Your task to perform on an android device: turn off sleep mode Image 0: 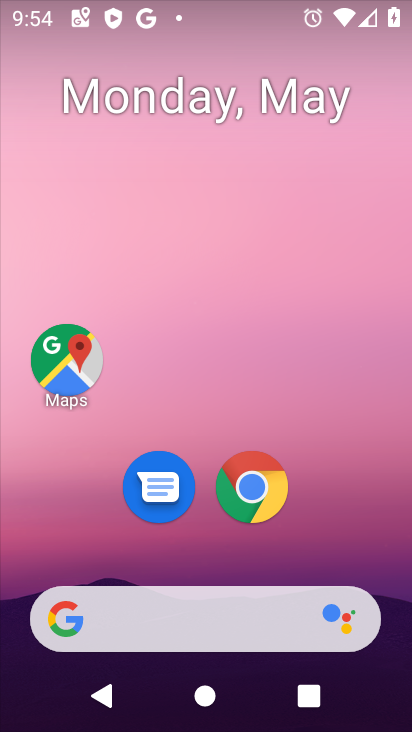
Step 0: drag from (203, 19) to (234, 573)
Your task to perform on an android device: turn off sleep mode Image 1: 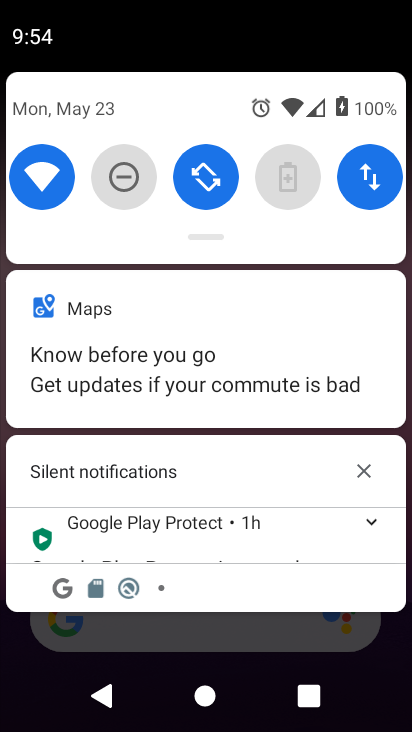
Step 1: drag from (205, 70) to (118, 638)
Your task to perform on an android device: turn off sleep mode Image 2: 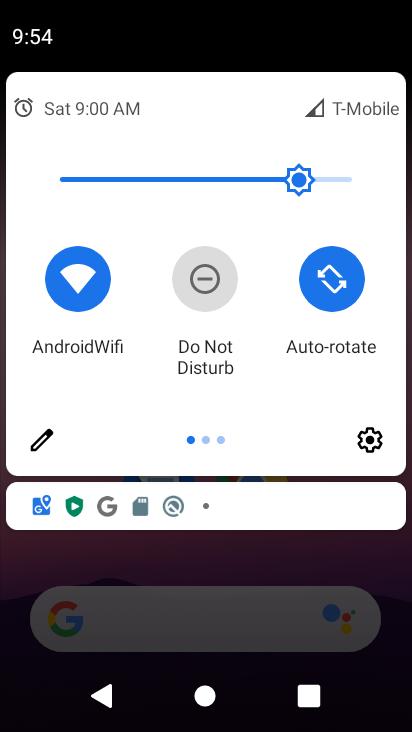
Step 2: click (352, 435)
Your task to perform on an android device: turn off sleep mode Image 3: 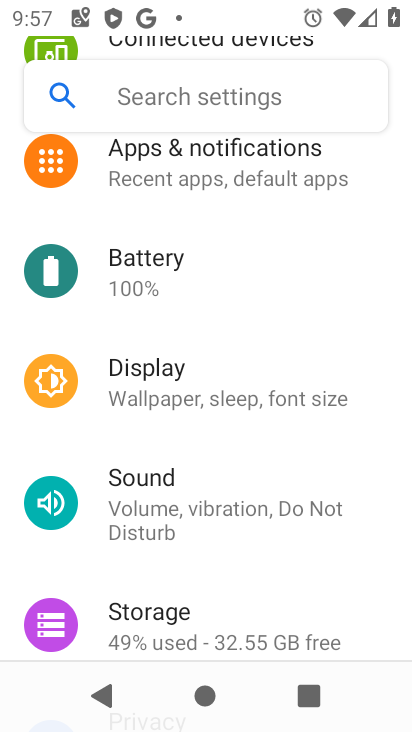
Step 3: task complete